Your task to perform on an android device: Open wifi settings Image 0: 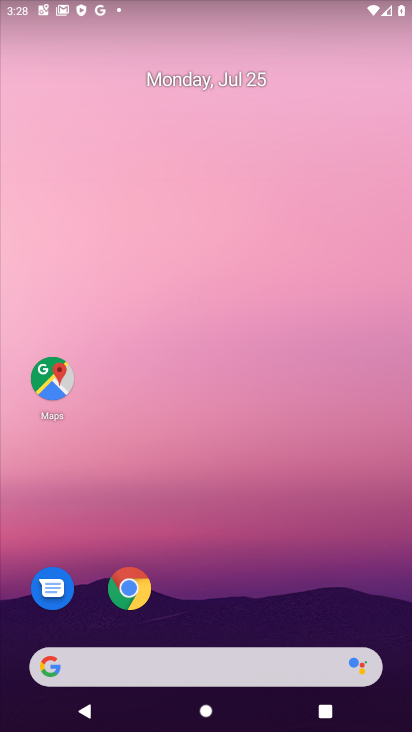
Step 0: drag from (397, 703) to (287, 142)
Your task to perform on an android device: Open wifi settings Image 1: 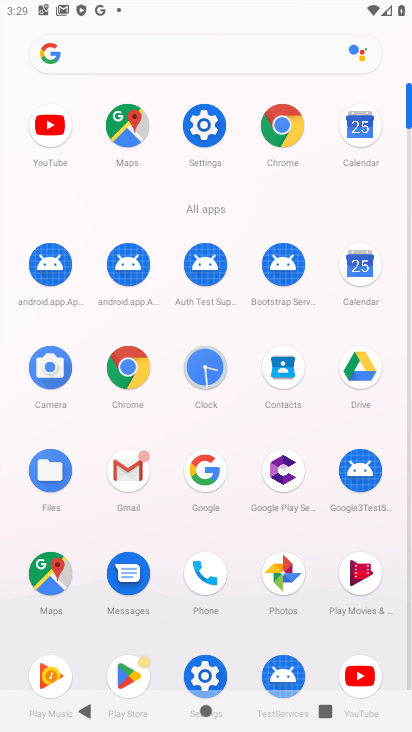
Step 1: click (198, 667)
Your task to perform on an android device: Open wifi settings Image 2: 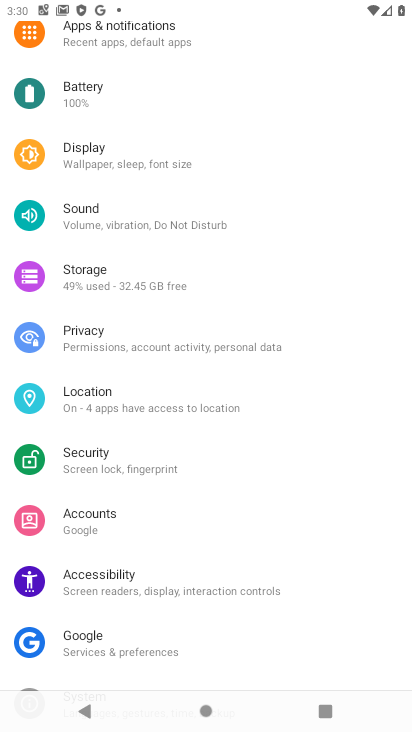
Step 2: drag from (267, 90) to (290, 549)
Your task to perform on an android device: Open wifi settings Image 3: 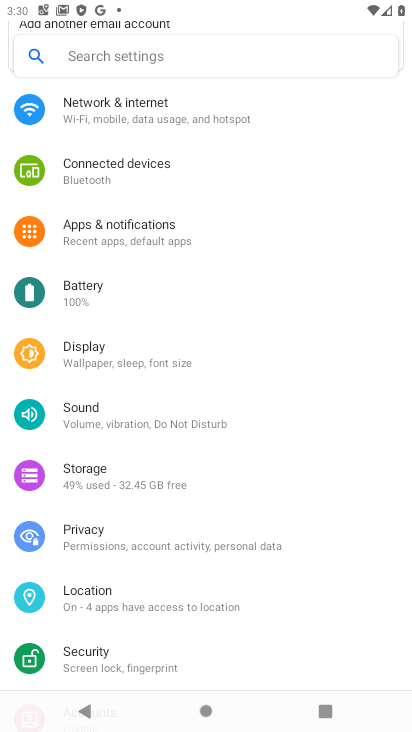
Step 3: click (153, 105)
Your task to perform on an android device: Open wifi settings Image 4: 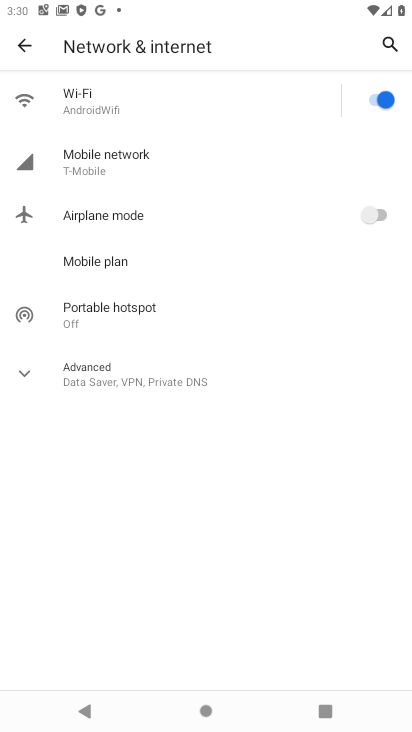
Step 4: click (201, 98)
Your task to perform on an android device: Open wifi settings Image 5: 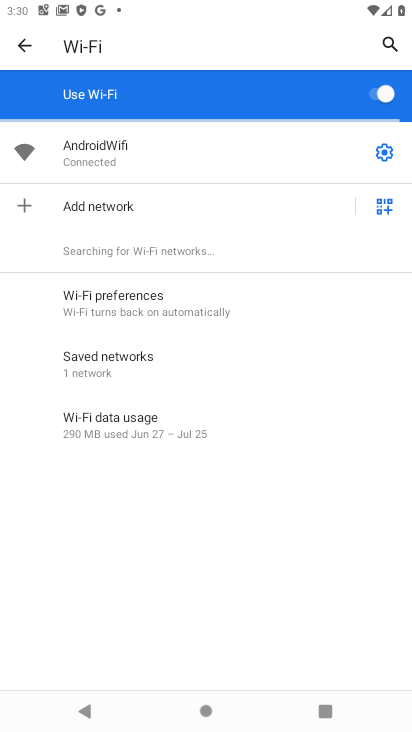
Step 5: click (376, 148)
Your task to perform on an android device: Open wifi settings Image 6: 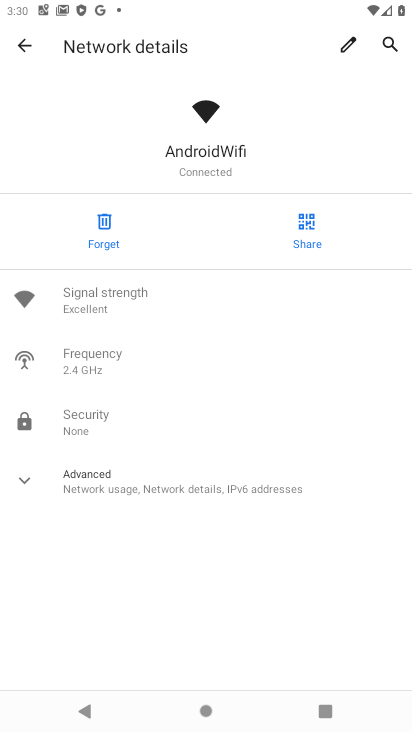
Step 6: task complete